Your task to perform on an android device: Open Youtube and go to the subscriptions tab Image 0: 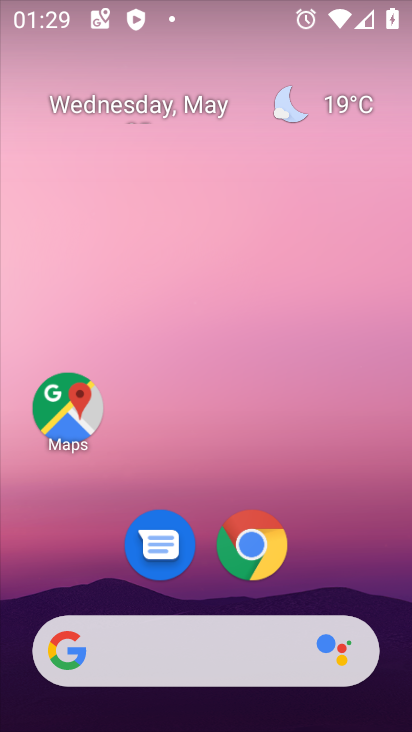
Step 0: drag from (352, 548) to (349, 112)
Your task to perform on an android device: Open Youtube and go to the subscriptions tab Image 1: 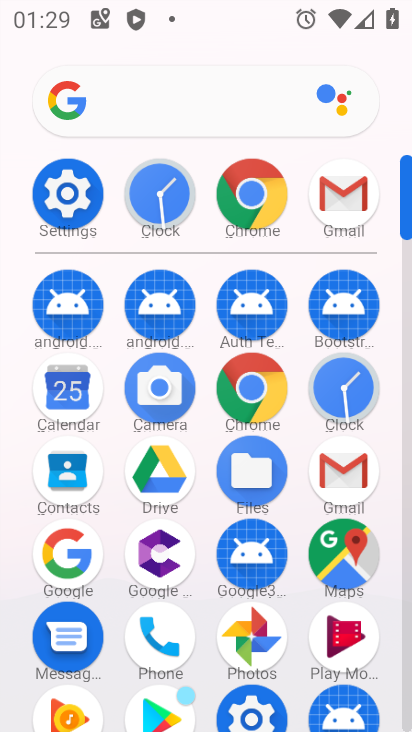
Step 1: drag from (292, 612) to (324, 212)
Your task to perform on an android device: Open Youtube and go to the subscriptions tab Image 2: 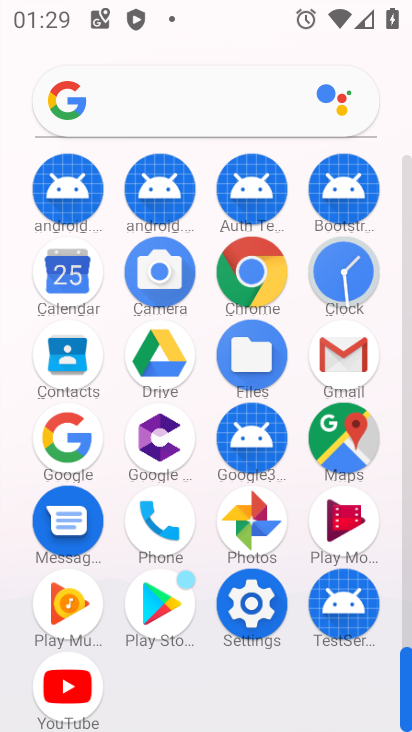
Step 2: click (79, 670)
Your task to perform on an android device: Open Youtube and go to the subscriptions tab Image 3: 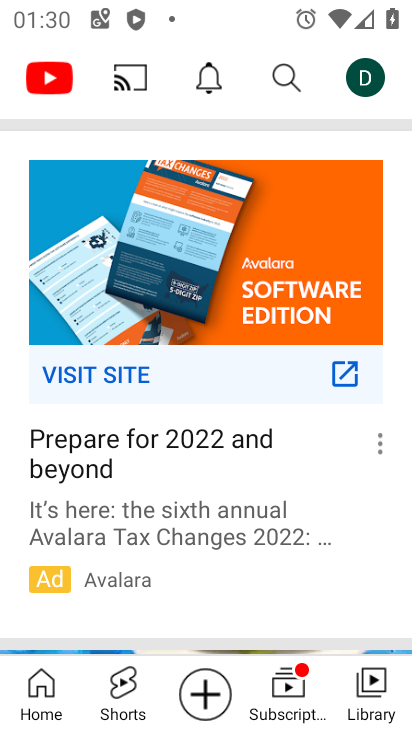
Step 3: click (290, 709)
Your task to perform on an android device: Open Youtube and go to the subscriptions tab Image 4: 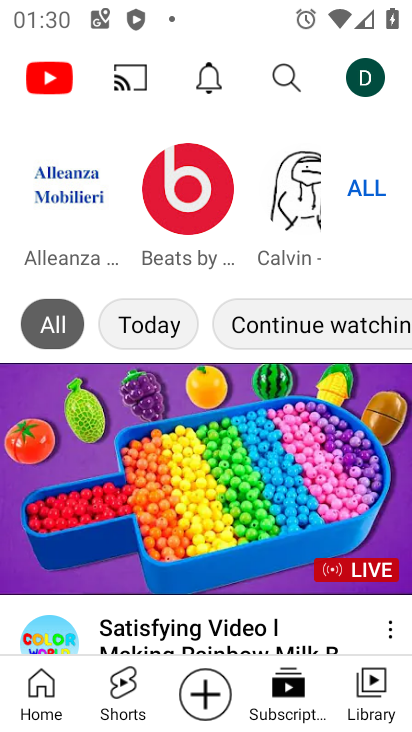
Step 4: task complete